Your task to perform on an android device: Open the calendar and show me this week's events? Image 0: 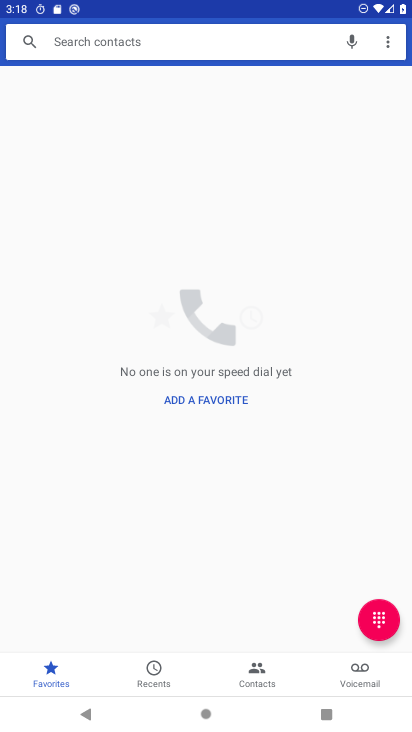
Step 0: press home button
Your task to perform on an android device: Open the calendar and show me this week's events? Image 1: 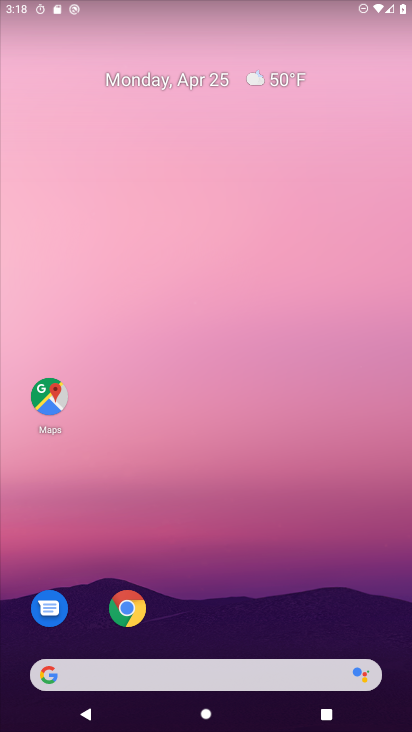
Step 1: drag from (211, 623) to (270, 240)
Your task to perform on an android device: Open the calendar and show me this week's events? Image 2: 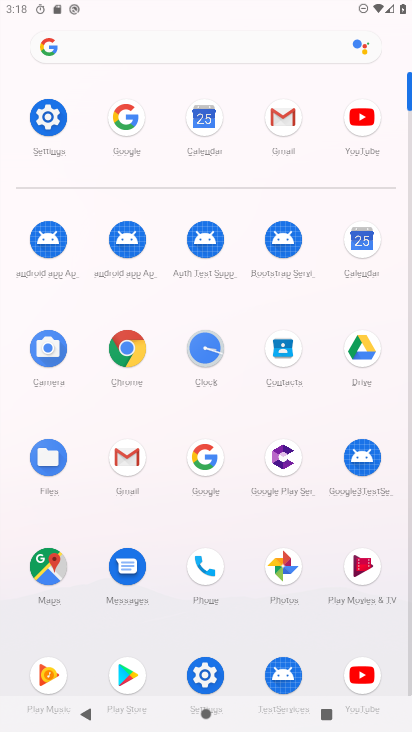
Step 2: click (362, 252)
Your task to perform on an android device: Open the calendar and show me this week's events? Image 3: 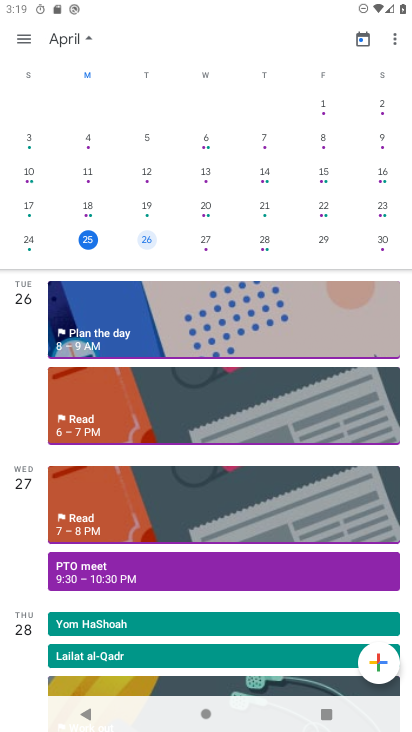
Step 3: click (206, 237)
Your task to perform on an android device: Open the calendar and show me this week's events? Image 4: 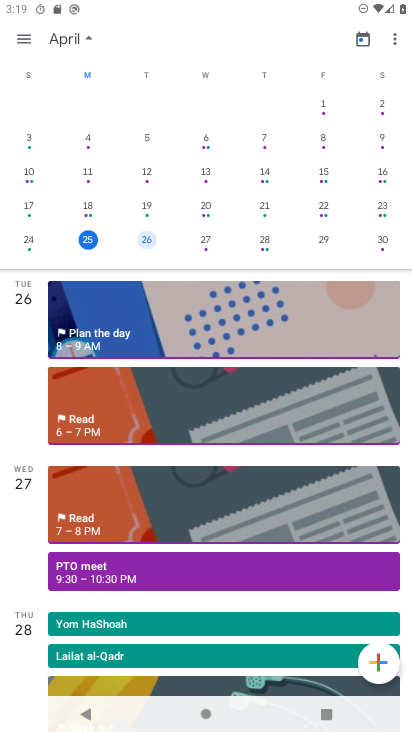
Step 4: click (266, 236)
Your task to perform on an android device: Open the calendar and show me this week's events? Image 5: 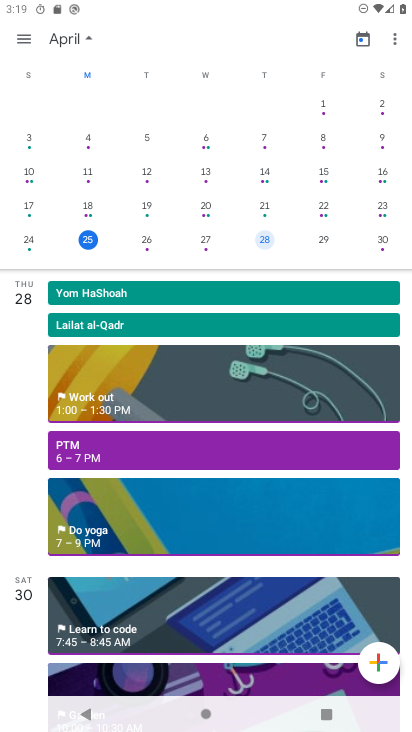
Step 5: click (266, 241)
Your task to perform on an android device: Open the calendar and show me this week's events? Image 6: 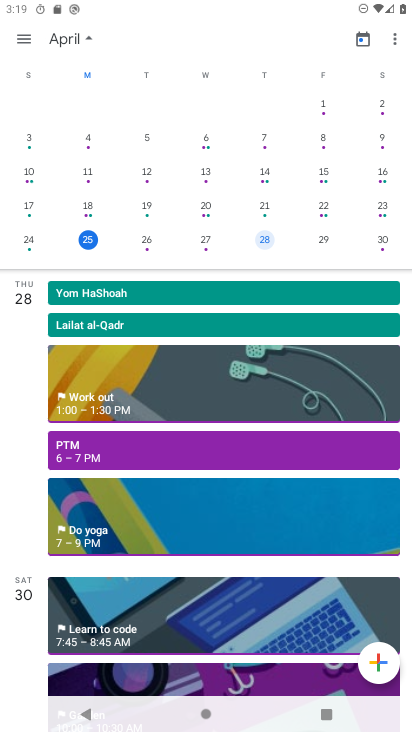
Step 6: click (266, 375)
Your task to perform on an android device: Open the calendar and show me this week's events? Image 7: 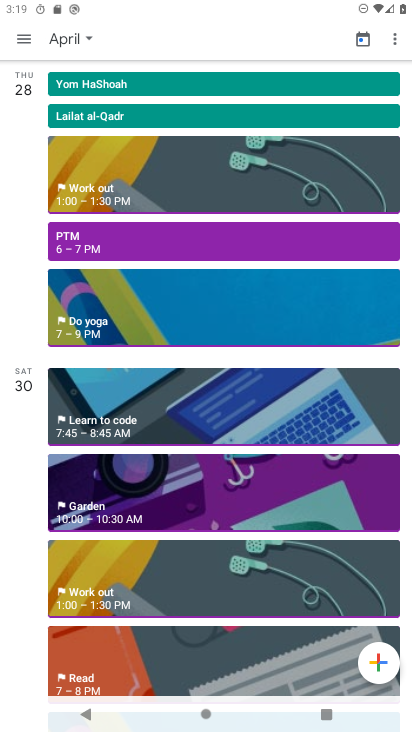
Step 7: task complete